Your task to perform on an android device: change the upload size in google photos Image 0: 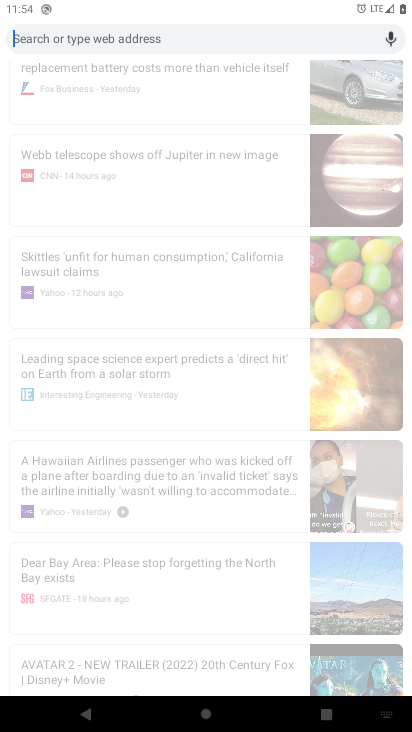
Step 0: press home button
Your task to perform on an android device: change the upload size in google photos Image 1: 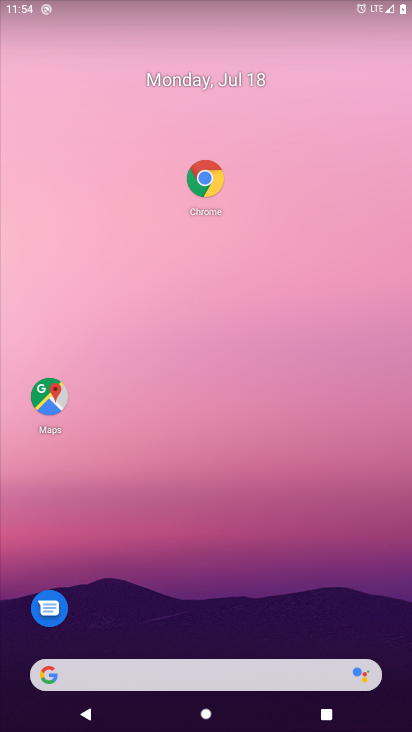
Step 1: drag from (70, 617) to (223, 247)
Your task to perform on an android device: change the upload size in google photos Image 2: 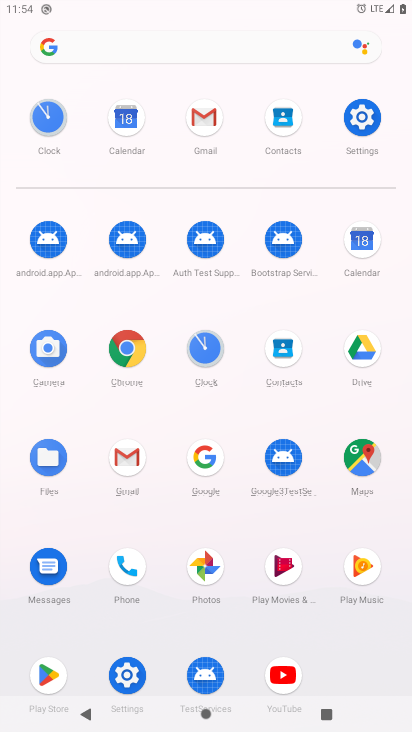
Step 2: click (195, 569)
Your task to perform on an android device: change the upload size in google photos Image 3: 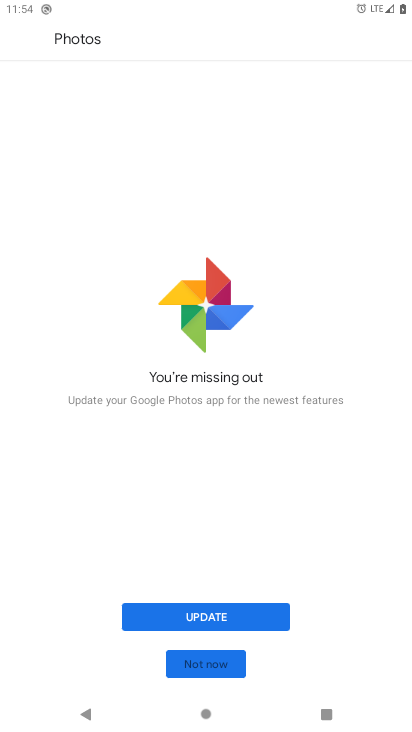
Step 3: click (201, 672)
Your task to perform on an android device: change the upload size in google photos Image 4: 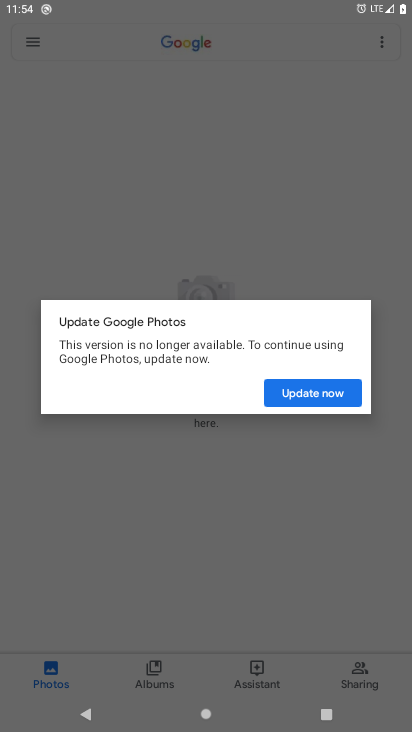
Step 4: click (290, 387)
Your task to perform on an android device: change the upload size in google photos Image 5: 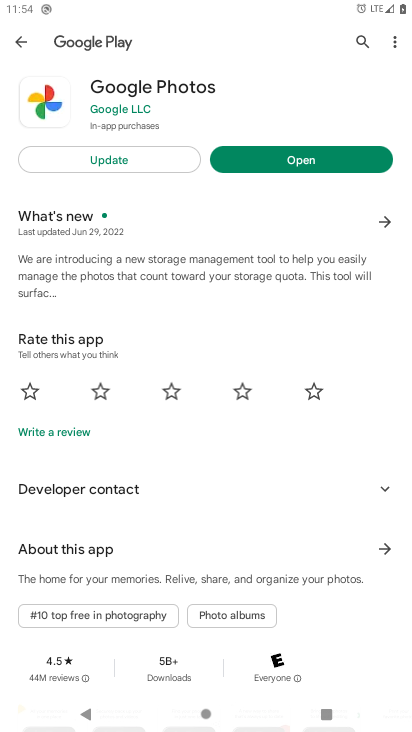
Step 5: click (274, 162)
Your task to perform on an android device: change the upload size in google photos Image 6: 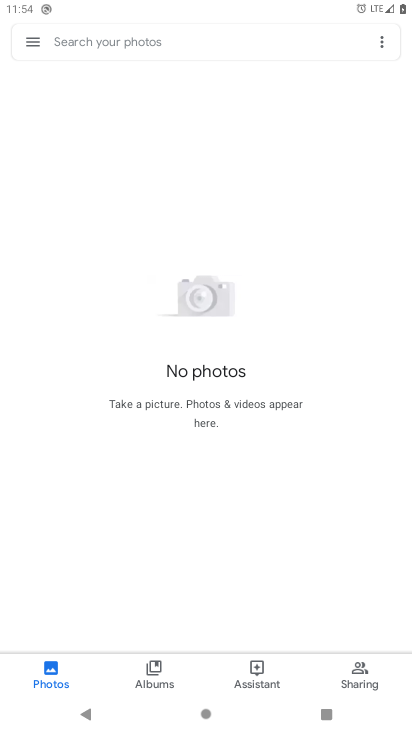
Step 6: click (44, 37)
Your task to perform on an android device: change the upload size in google photos Image 7: 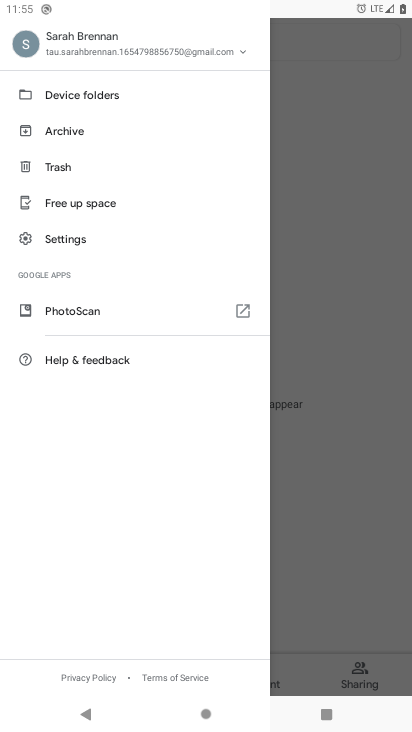
Step 7: click (65, 241)
Your task to perform on an android device: change the upload size in google photos Image 8: 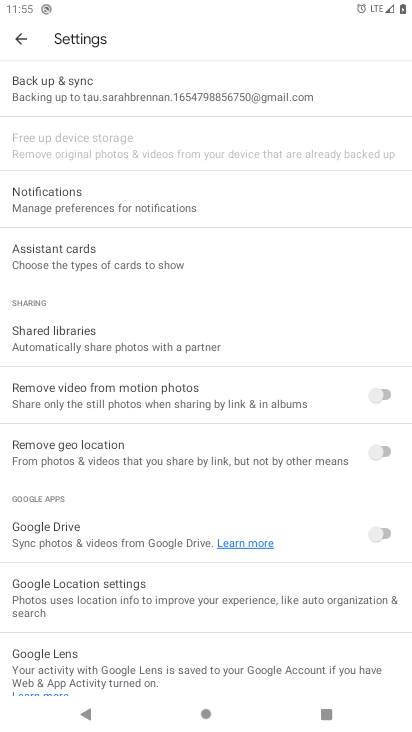
Step 8: click (94, 81)
Your task to perform on an android device: change the upload size in google photos Image 9: 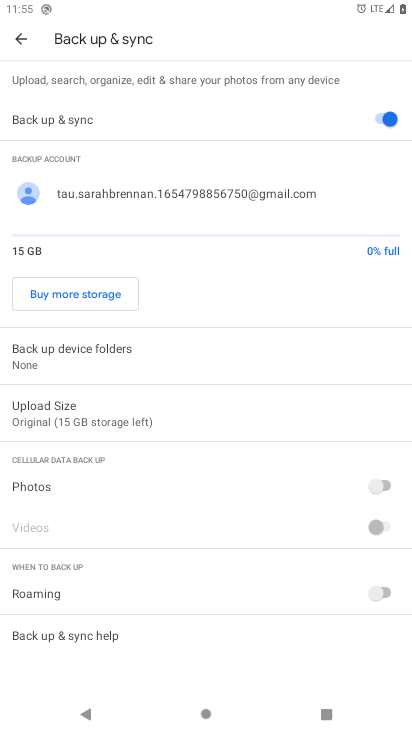
Step 9: click (83, 420)
Your task to perform on an android device: change the upload size in google photos Image 10: 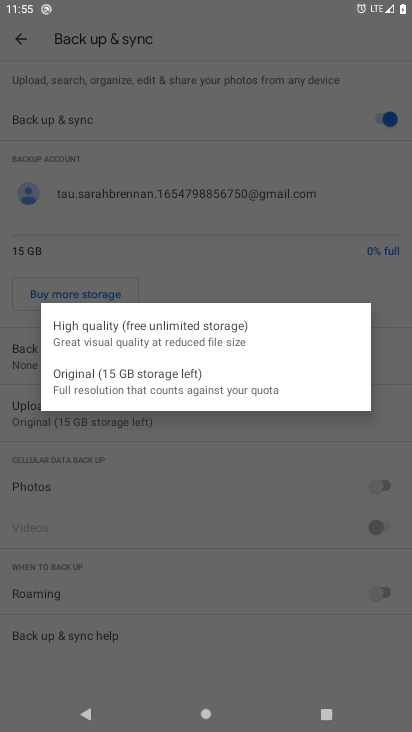
Step 10: click (167, 324)
Your task to perform on an android device: change the upload size in google photos Image 11: 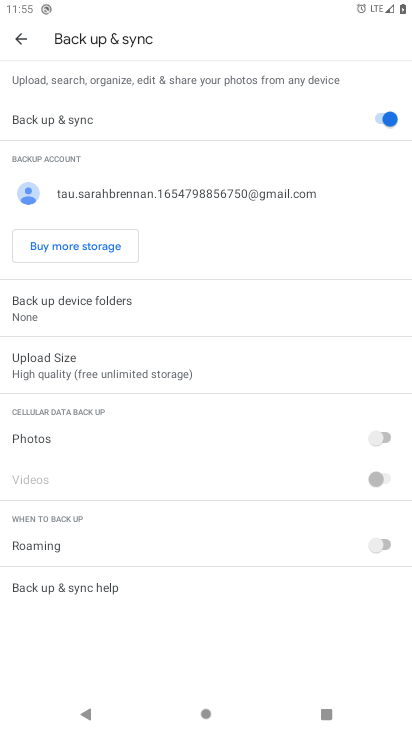
Step 11: task complete